Your task to perform on an android device: Do I have any events this weekend? Image 0: 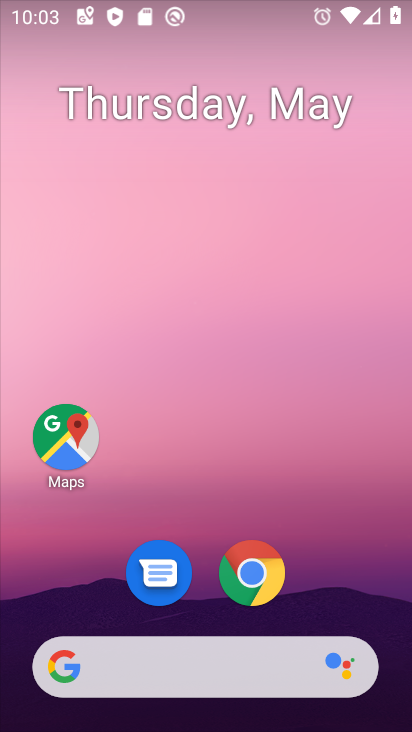
Step 0: drag from (202, 607) to (257, 135)
Your task to perform on an android device: Do I have any events this weekend? Image 1: 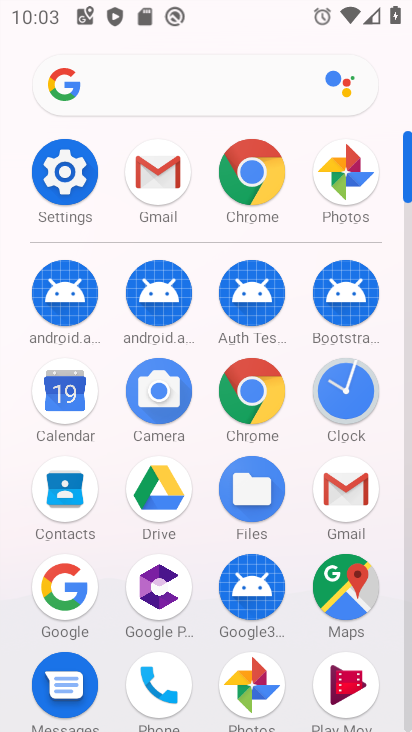
Step 1: click (72, 581)
Your task to perform on an android device: Do I have any events this weekend? Image 2: 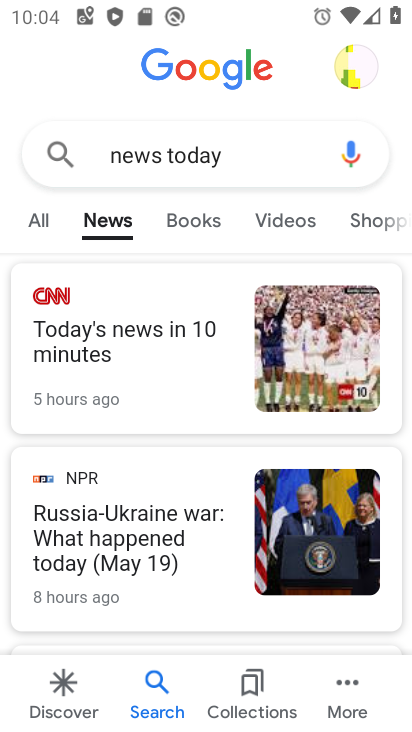
Step 2: press home button
Your task to perform on an android device: Do I have any events this weekend? Image 3: 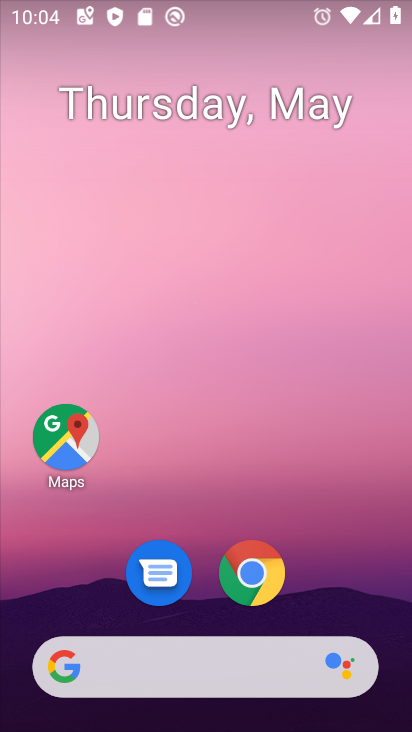
Step 3: drag from (194, 607) to (204, 252)
Your task to perform on an android device: Do I have any events this weekend? Image 4: 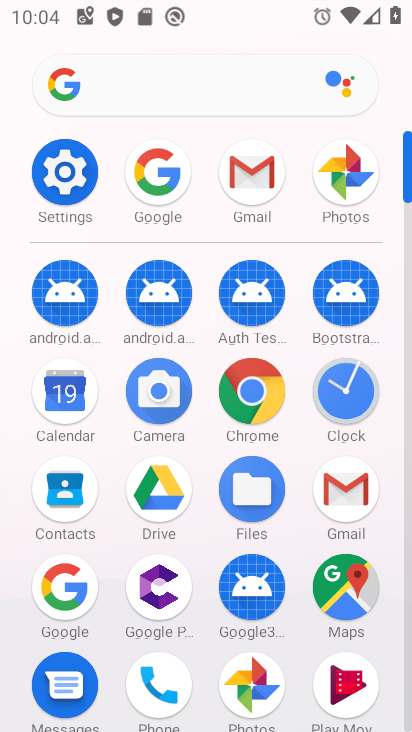
Step 4: click (60, 383)
Your task to perform on an android device: Do I have any events this weekend? Image 5: 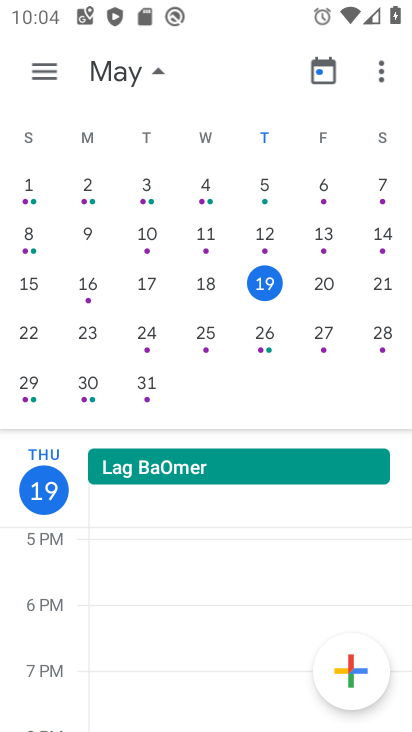
Step 5: click (374, 280)
Your task to perform on an android device: Do I have any events this weekend? Image 6: 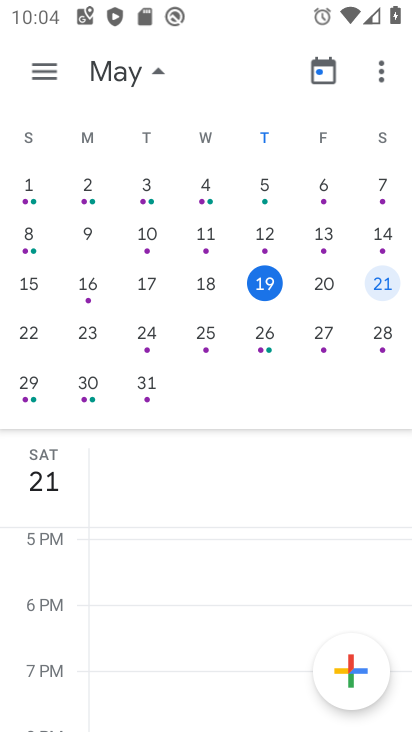
Step 6: click (26, 67)
Your task to perform on an android device: Do I have any events this weekend? Image 7: 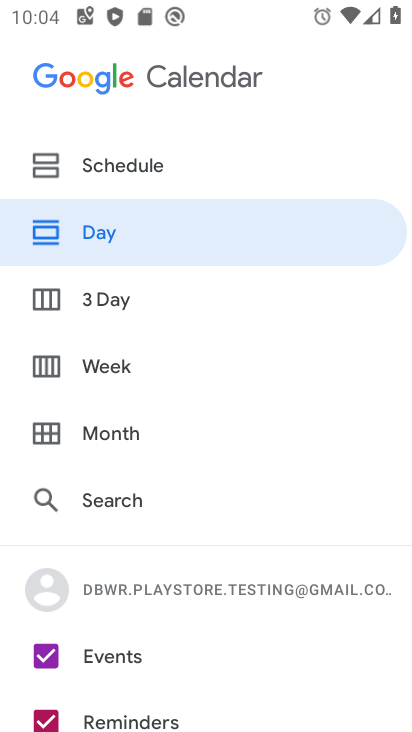
Step 7: click (132, 154)
Your task to perform on an android device: Do I have any events this weekend? Image 8: 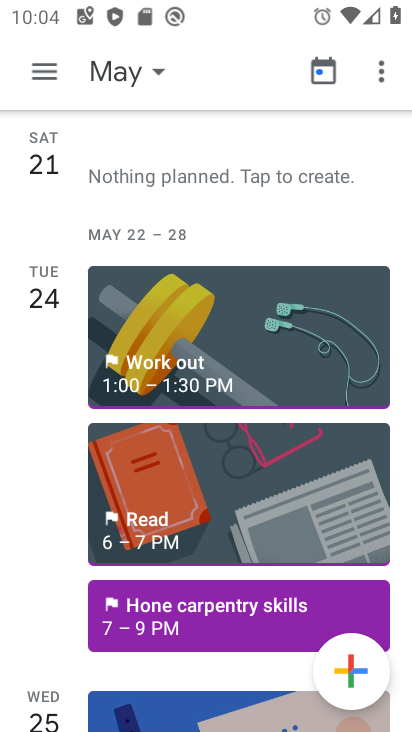
Step 8: task complete